Your task to perform on an android device: check data usage Image 0: 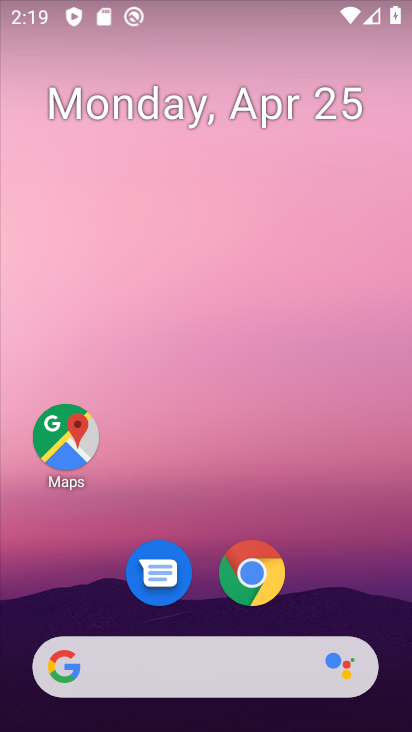
Step 0: click (328, 154)
Your task to perform on an android device: check data usage Image 1: 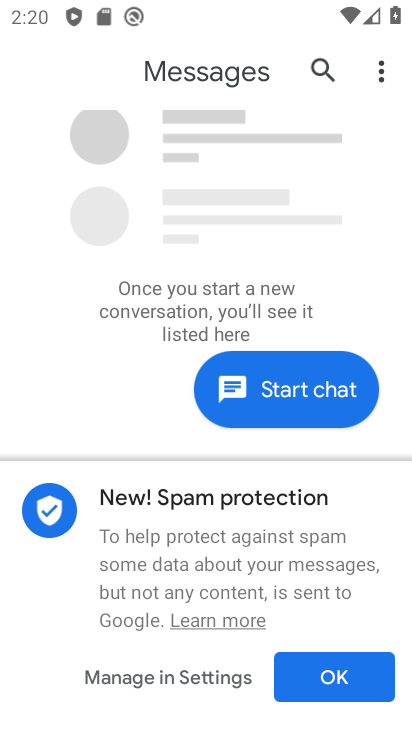
Step 1: press home button
Your task to perform on an android device: check data usage Image 2: 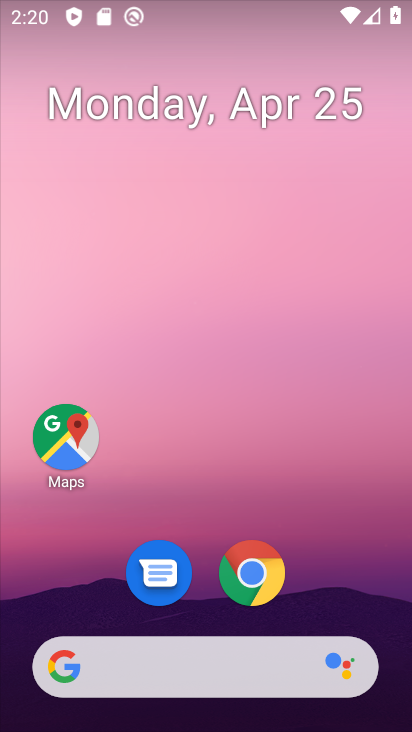
Step 2: drag from (355, 535) to (305, 48)
Your task to perform on an android device: check data usage Image 3: 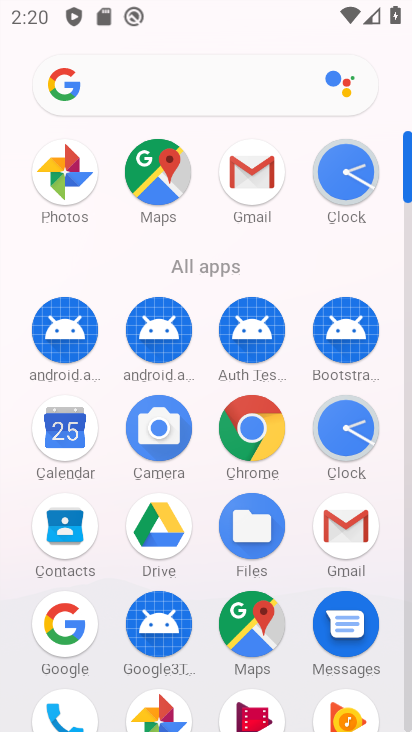
Step 3: drag from (388, 597) to (407, 314)
Your task to perform on an android device: check data usage Image 4: 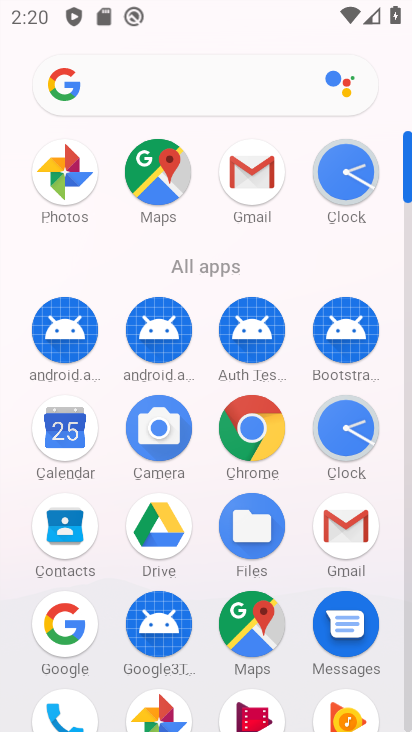
Step 4: drag from (391, 613) to (379, 318)
Your task to perform on an android device: check data usage Image 5: 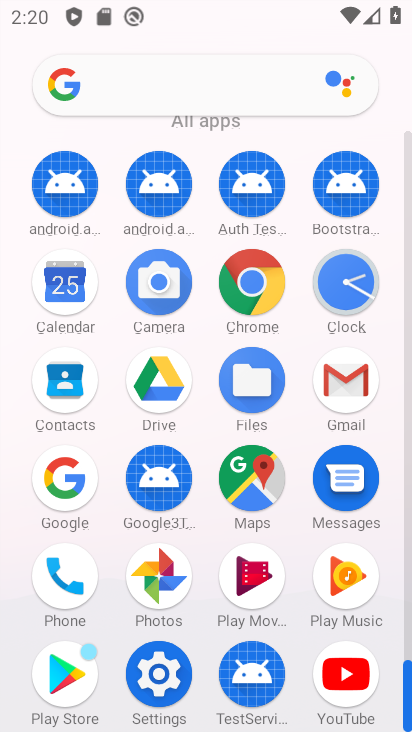
Step 5: click (166, 673)
Your task to perform on an android device: check data usage Image 6: 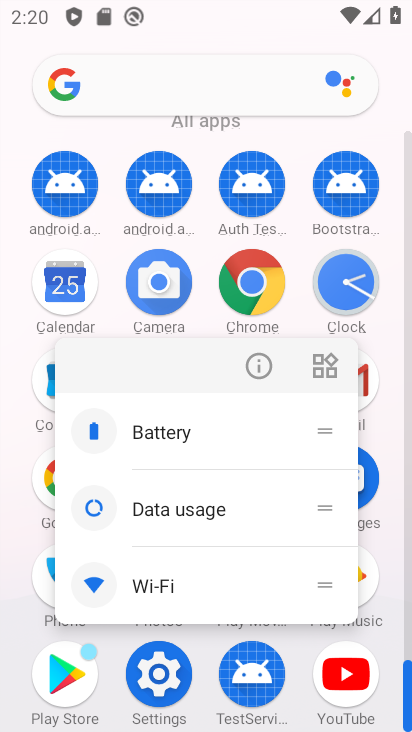
Step 6: click (147, 658)
Your task to perform on an android device: check data usage Image 7: 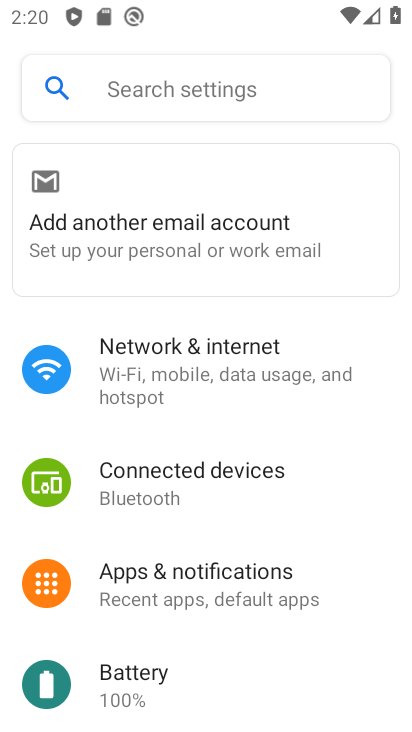
Step 7: click (172, 356)
Your task to perform on an android device: check data usage Image 8: 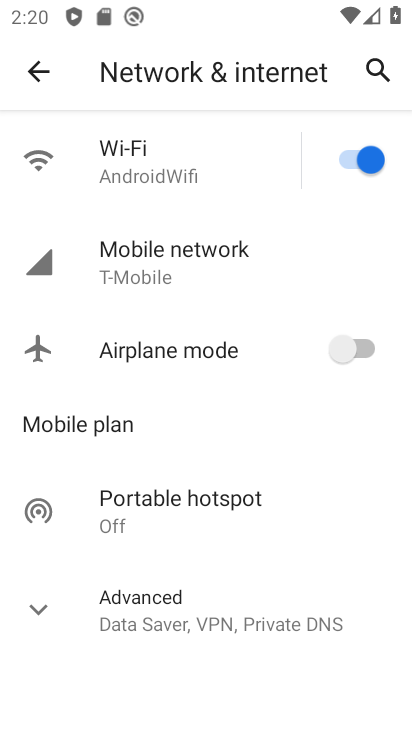
Step 8: click (144, 270)
Your task to perform on an android device: check data usage Image 9: 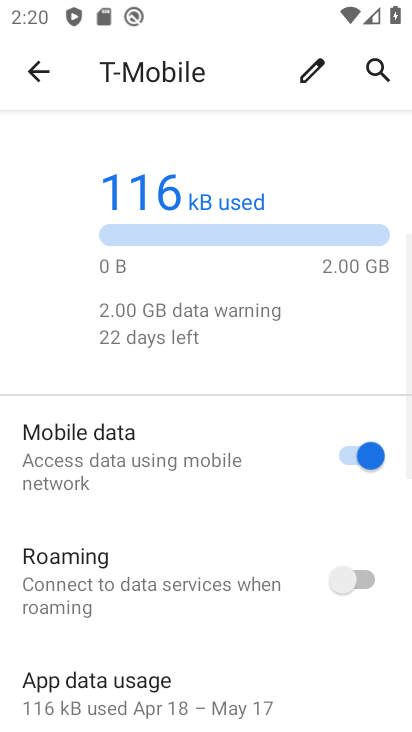
Step 9: task complete